Your task to perform on an android device: install app "Google Docs" Image 0: 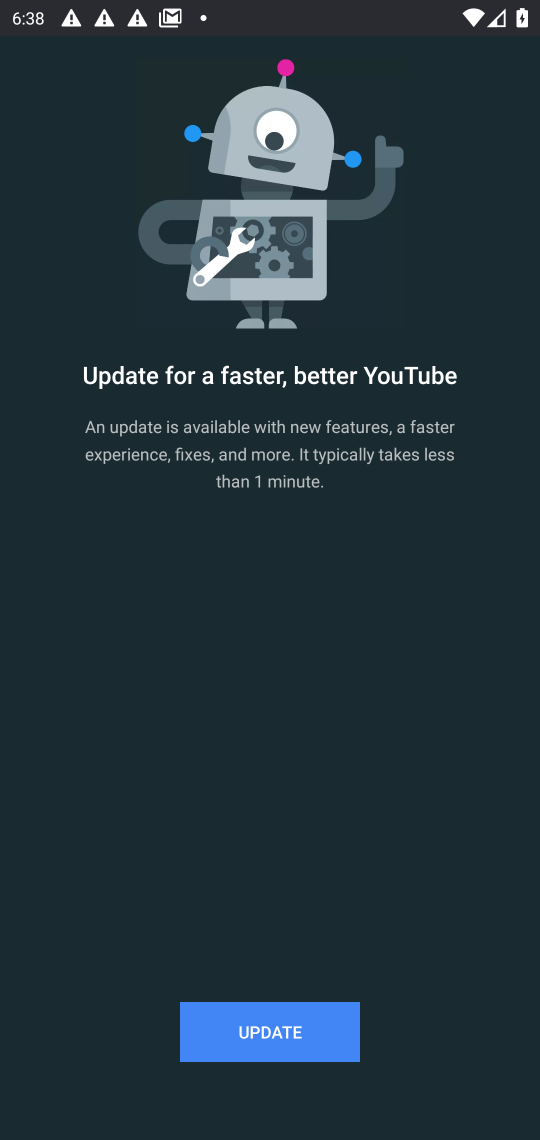
Step 0: press home button
Your task to perform on an android device: install app "Google Docs" Image 1: 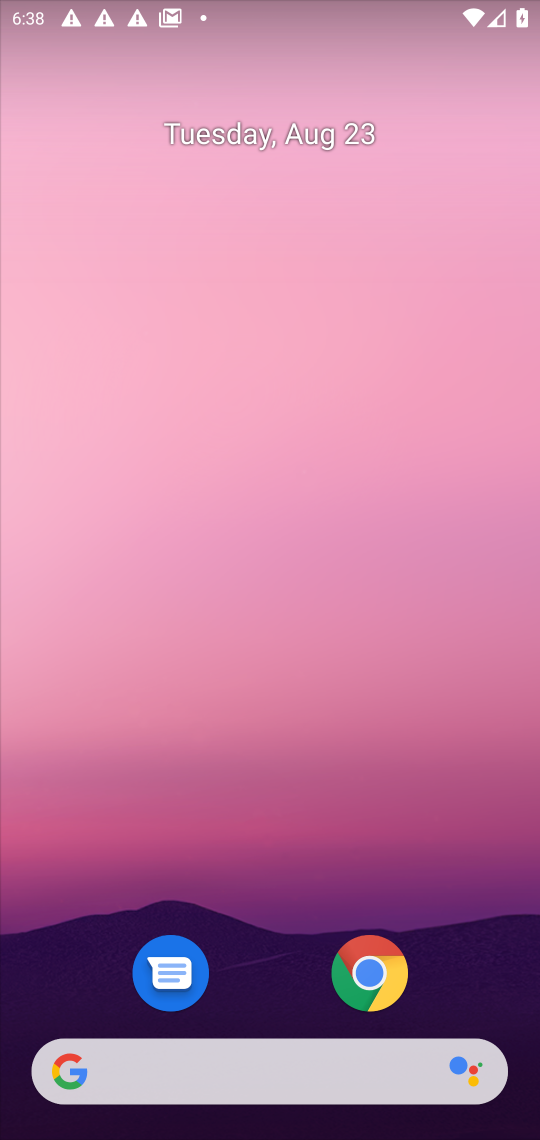
Step 1: drag from (245, 993) to (320, 116)
Your task to perform on an android device: install app "Google Docs" Image 2: 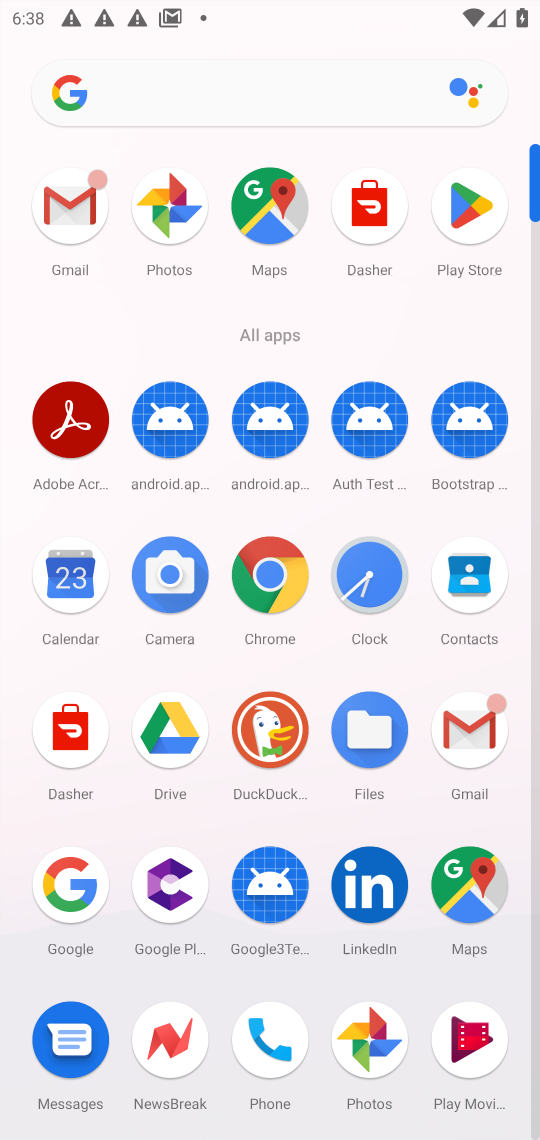
Step 2: click (447, 201)
Your task to perform on an android device: install app "Google Docs" Image 3: 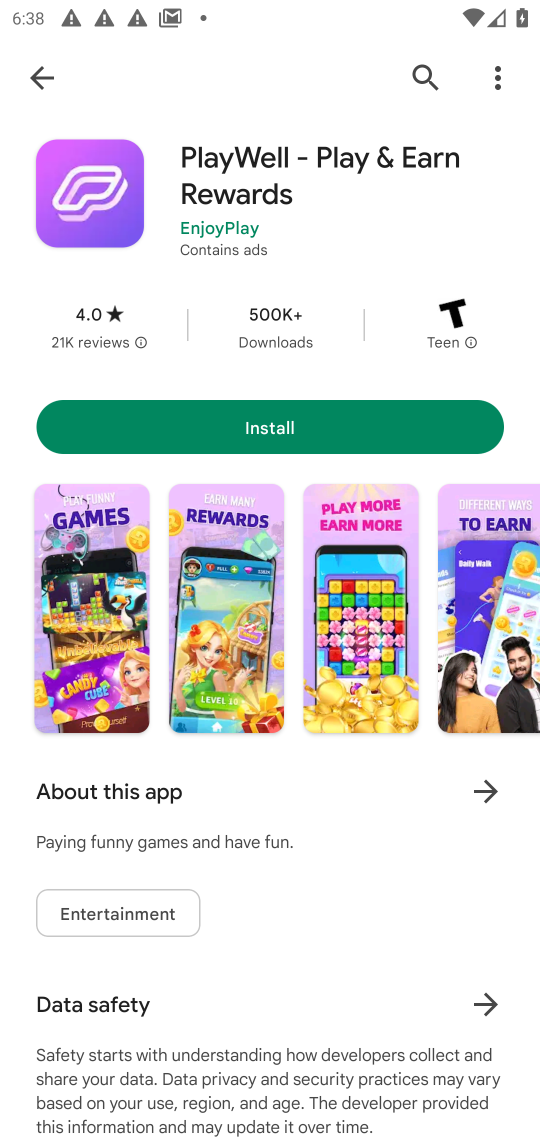
Step 3: click (426, 76)
Your task to perform on an android device: install app "Google Docs" Image 4: 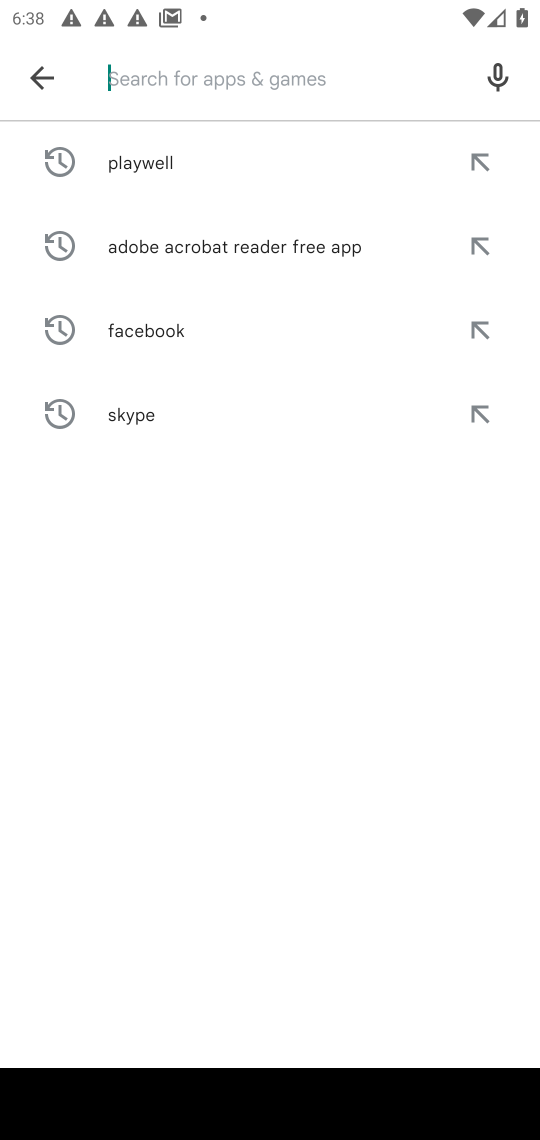
Step 4: click (150, 73)
Your task to perform on an android device: install app "Google Docs" Image 5: 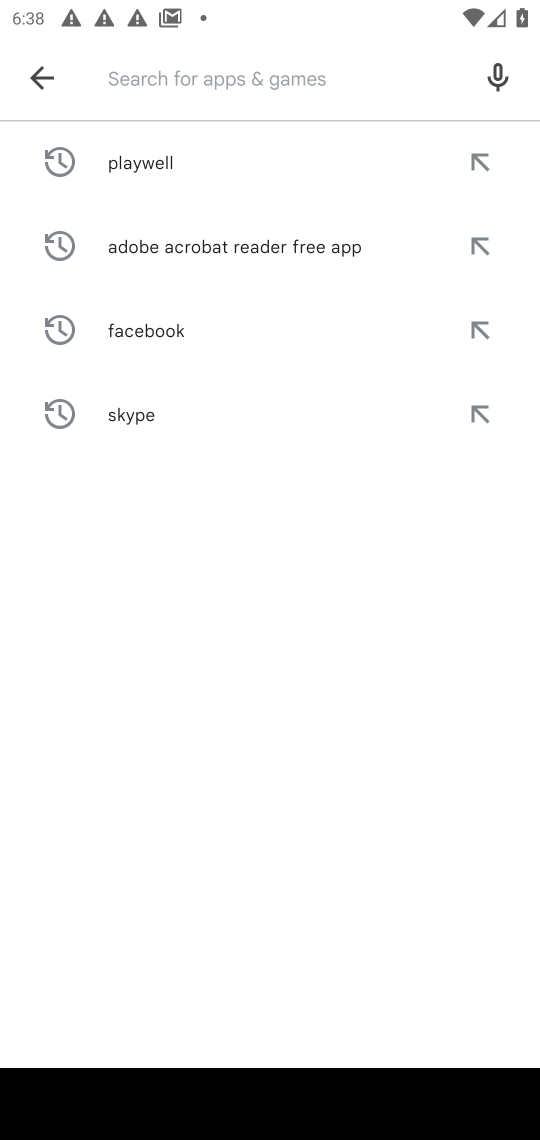
Step 5: type "Google Docs"
Your task to perform on an android device: install app "Google Docs" Image 6: 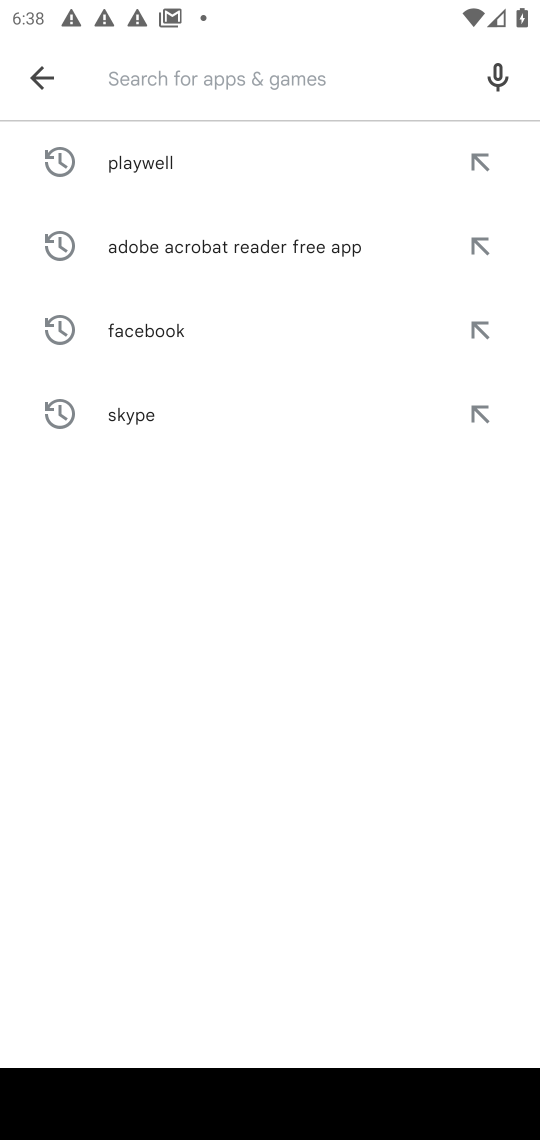
Step 6: click (247, 672)
Your task to perform on an android device: install app "Google Docs" Image 7: 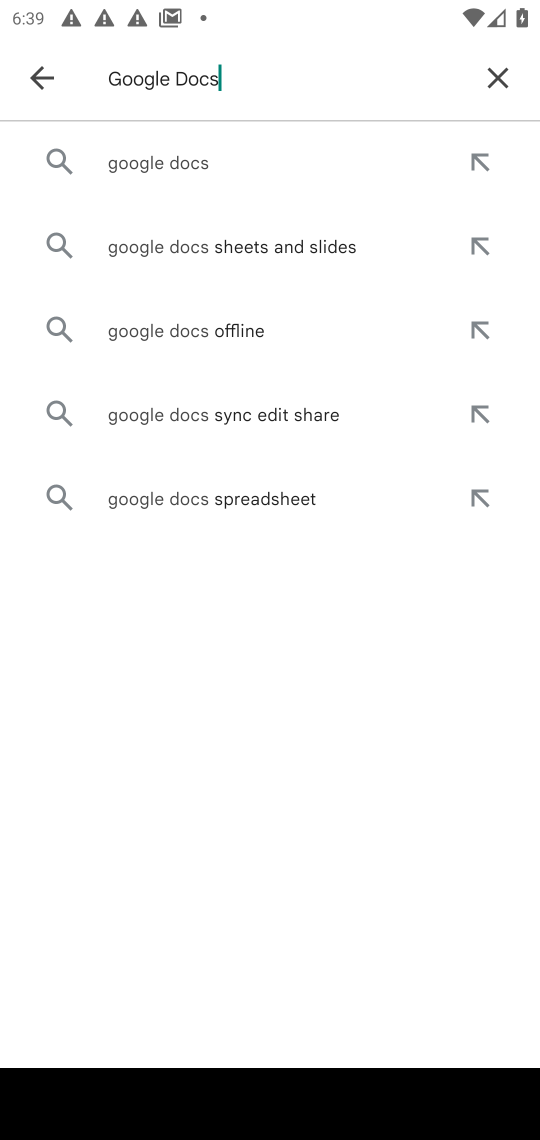
Step 7: click (170, 170)
Your task to perform on an android device: install app "Google Docs" Image 8: 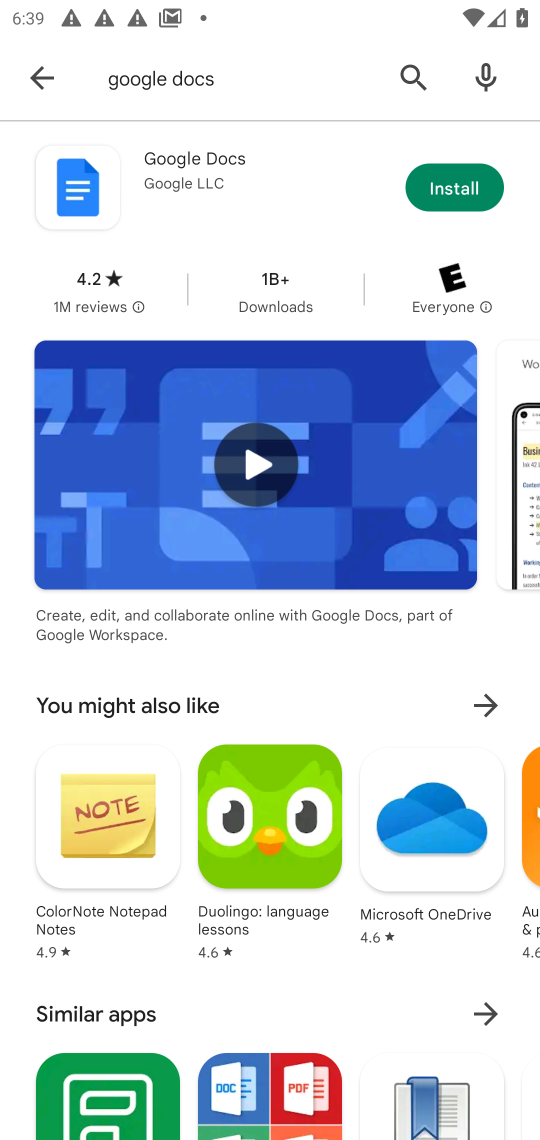
Step 8: click (469, 187)
Your task to perform on an android device: install app "Google Docs" Image 9: 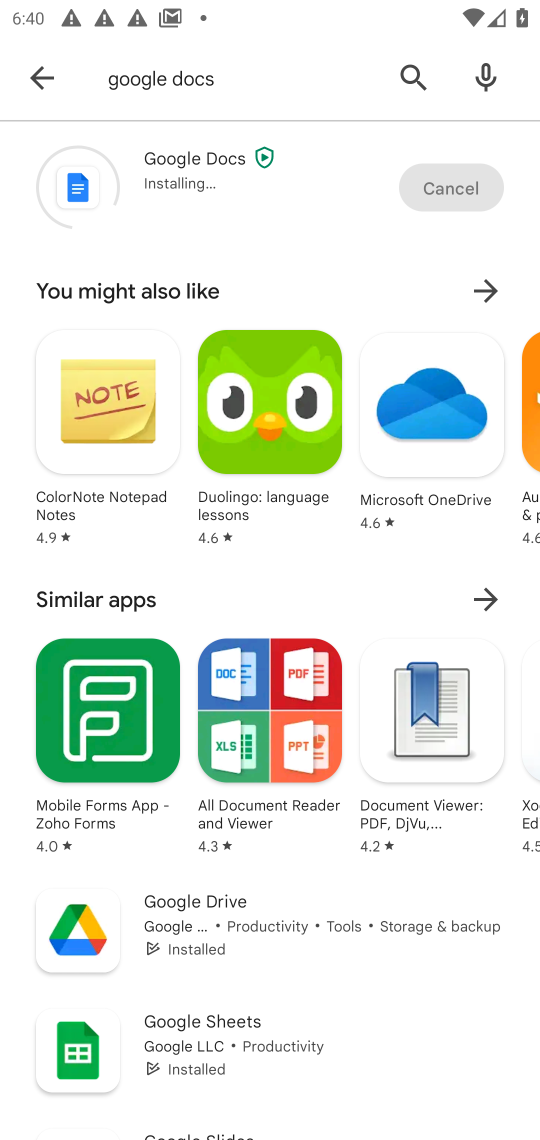
Step 9: press back button
Your task to perform on an android device: install app "Google Docs" Image 10: 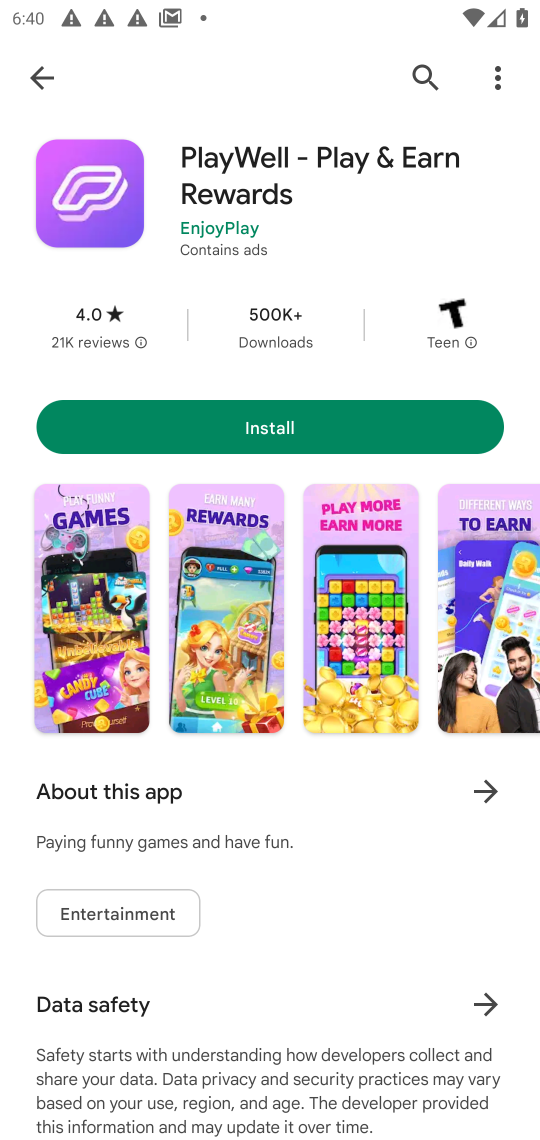
Step 10: click (423, 83)
Your task to perform on an android device: install app "Google Docs" Image 11: 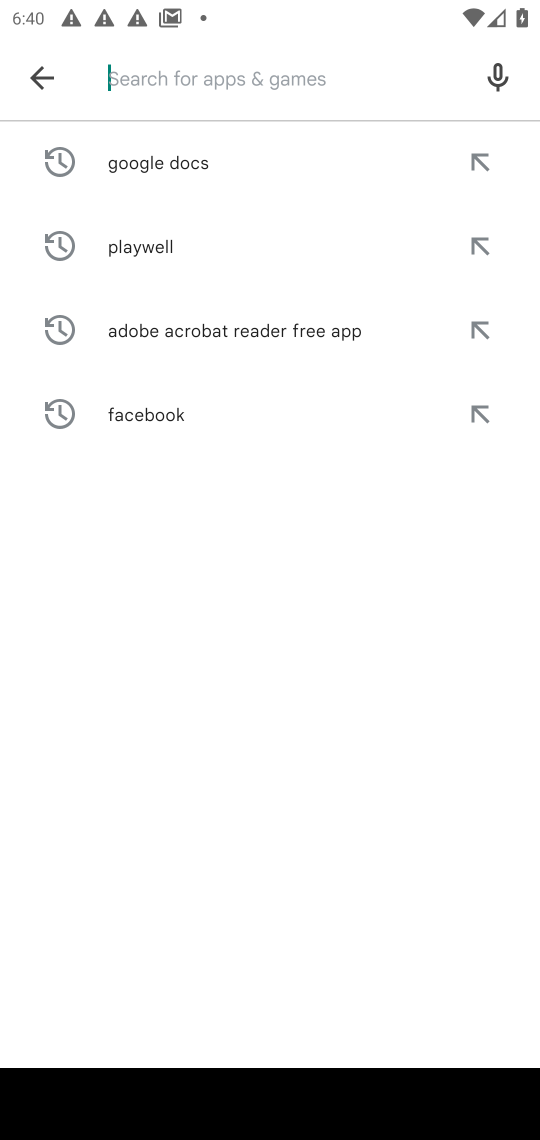
Step 11: click (169, 172)
Your task to perform on an android device: install app "Google Docs" Image 12: 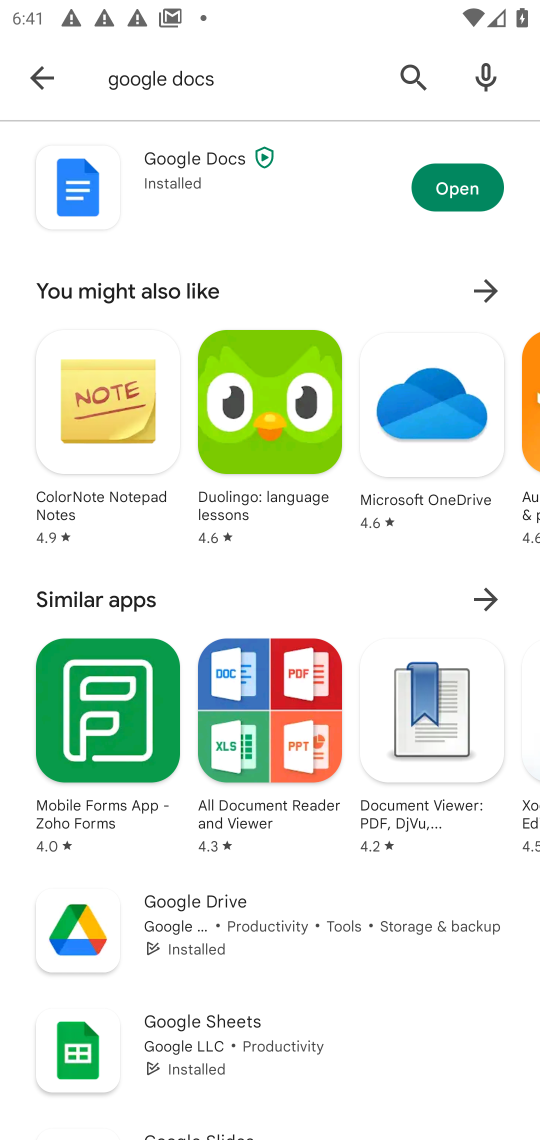
Step 12: task complete